Your task to perform on an android device: Open settings Image 0: 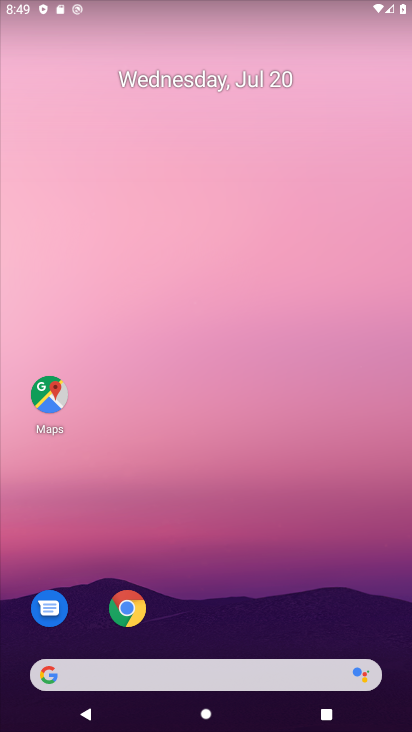
Step 0: click (147, 173)
Your task to perform on an android device: Open settings Image 1: 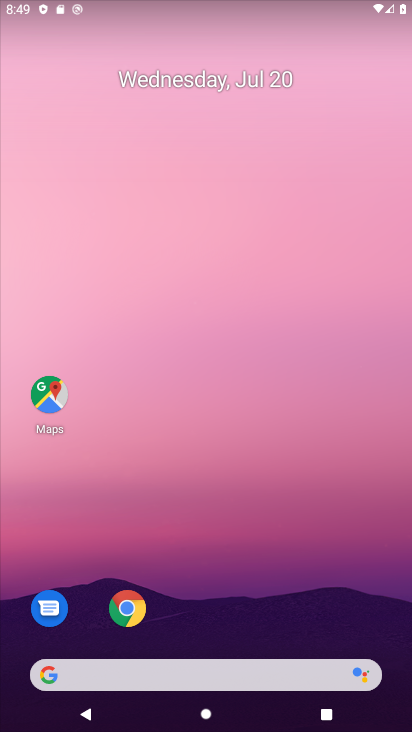
Step 1: drag from (219, 574) to (187, 130)
Your task to perform on an android device: Open settings Image 2: 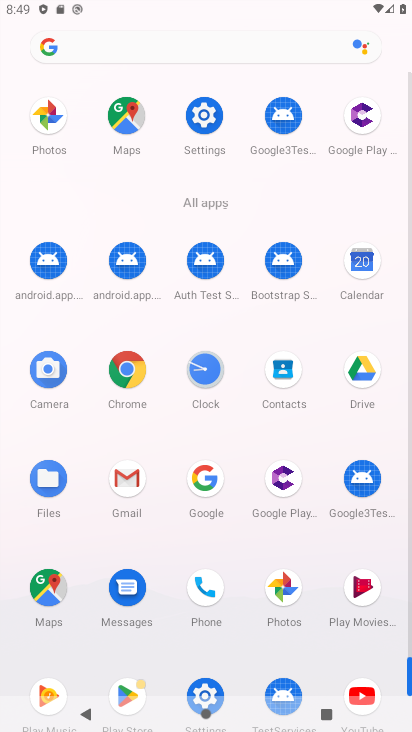
Step 2: drag from (218, 324) to (227, 24)
Your task to perform on an android device: Open settings Image 3: 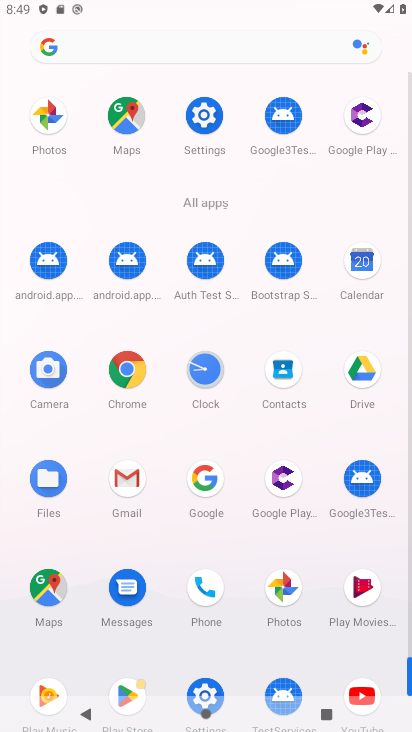
Step 3: click (209, 120)
Your task to perform on an android device: Open settings Image 4: 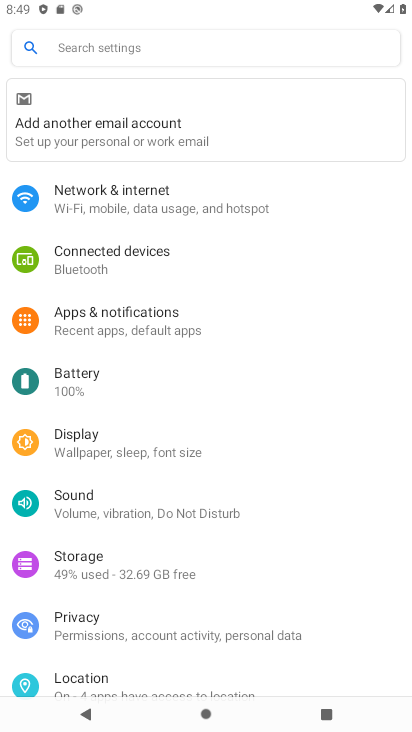
Step 4: task complete